Your task to perform on an android device: open app "YouTube Kids" (install if not already installed) and enter user name: "atmospheric@gmail.com" and password: "raze" Image 0: 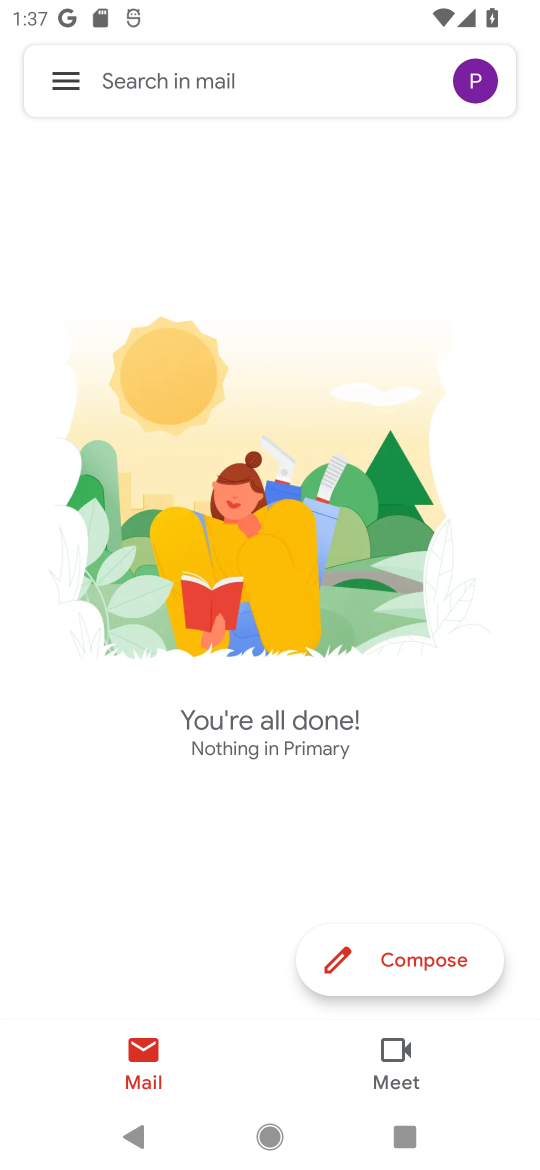
Step 0: press back button
Your task to perform on an android device: open app "YouTube Kids" (install if not already installed) and enter user name: "atmospheric@gmail.com" and password: "raze" Image 1: 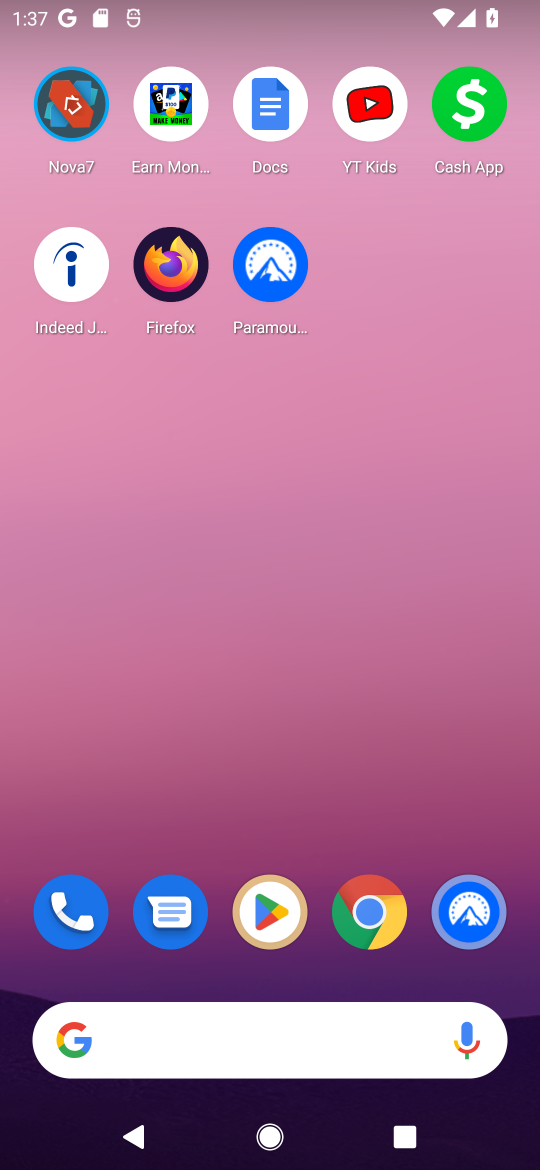
Step 1: click (254, 942)
Your task to perform on an android device: open app "YouTube Kids" (install if not already installed) and enter user name: "atmospheric@gmail.com" and password: "raze" Image 2: 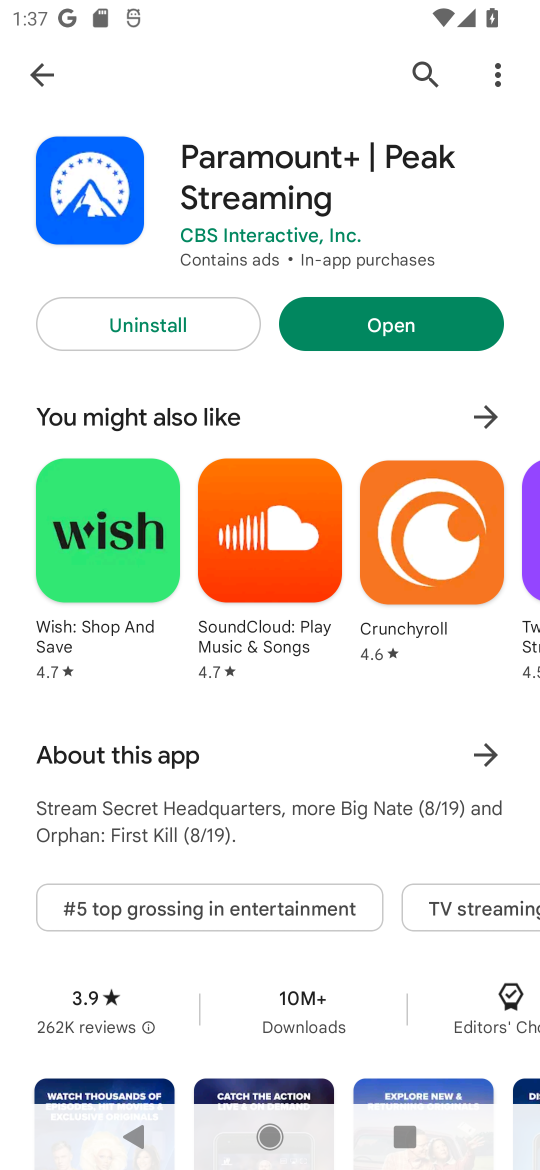
Step 2: click (434, 69)
Your task to perform on an android device: open app "YouTube Kids" (install if not already installed) and enter user name: "atmospheric@gmail.com" and password: "raze" Image 3: 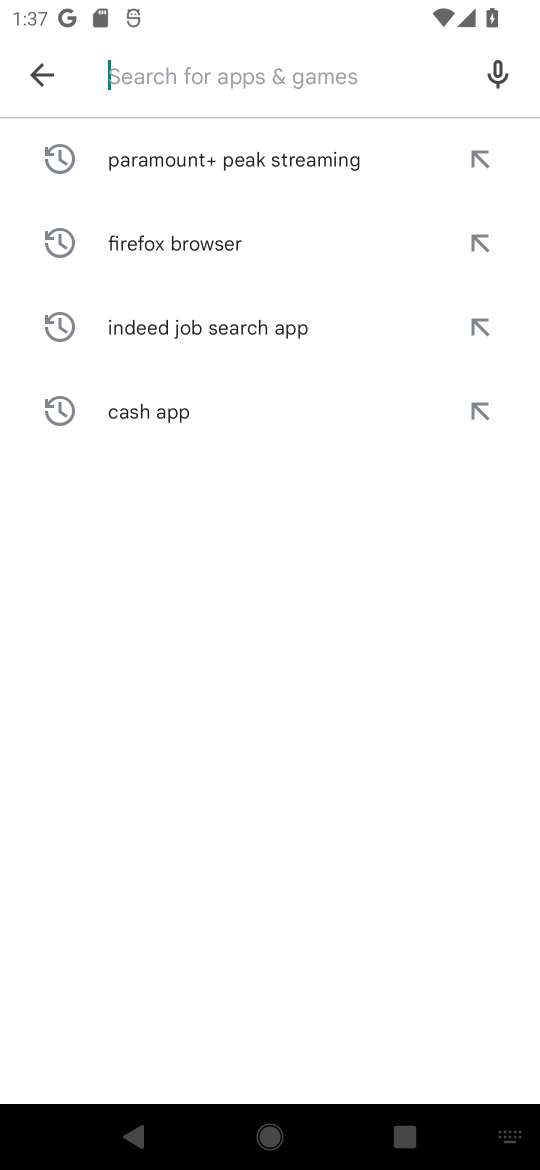
Step 3: click (284, 67)
Your task to perform on an android device: open app "YouTube Kids" (install if not already installed) and enter user name: "atmospheric@gmail.com" and password: "raze" Image 4: 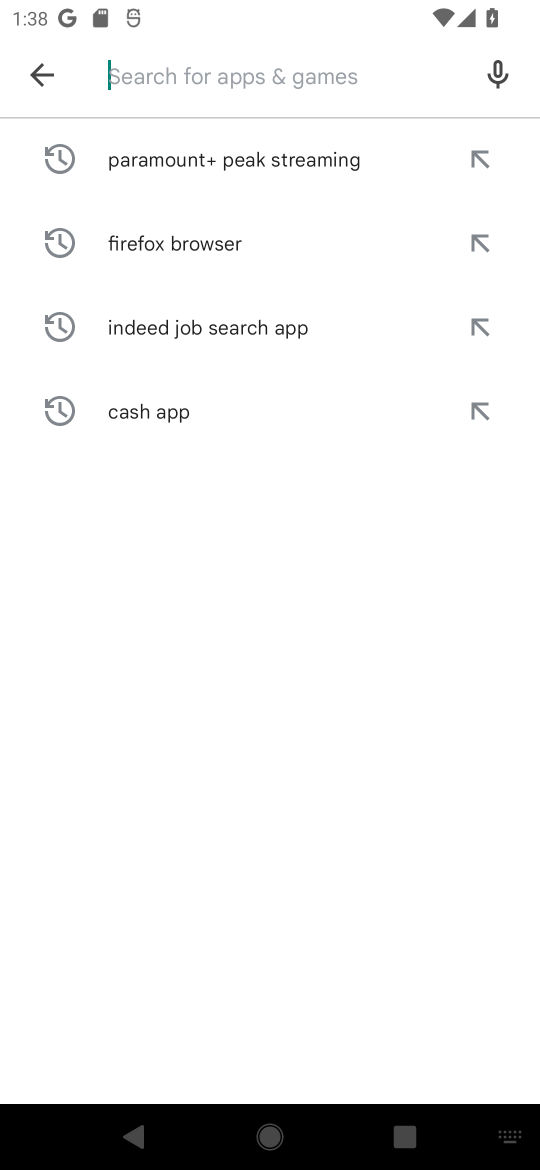
Step 4: type "youtubekids"
Your task to perform on an android device: open app "YouTube Kids" (install if not already installed) and enter user name: "atmospheric@gmail.com" and password: "raze" Image 5: 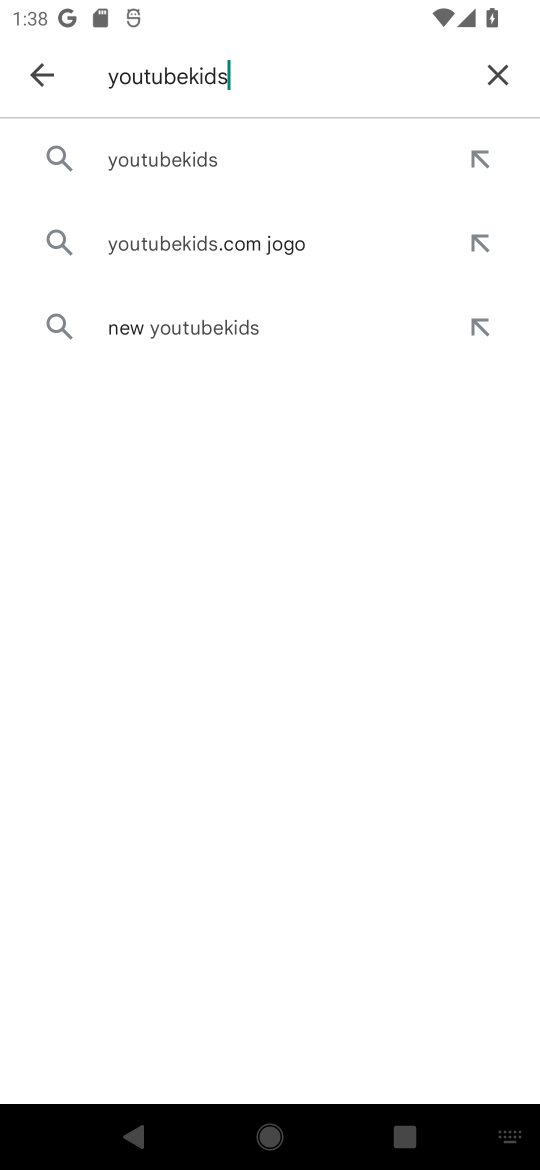
Step 5: click (205, 175)
Your task to perform on an android device: open app "YouTube Kids" (install if not already installed) and enter user name: "atmospheric@gmail.com" and password: "raze" Image 6: 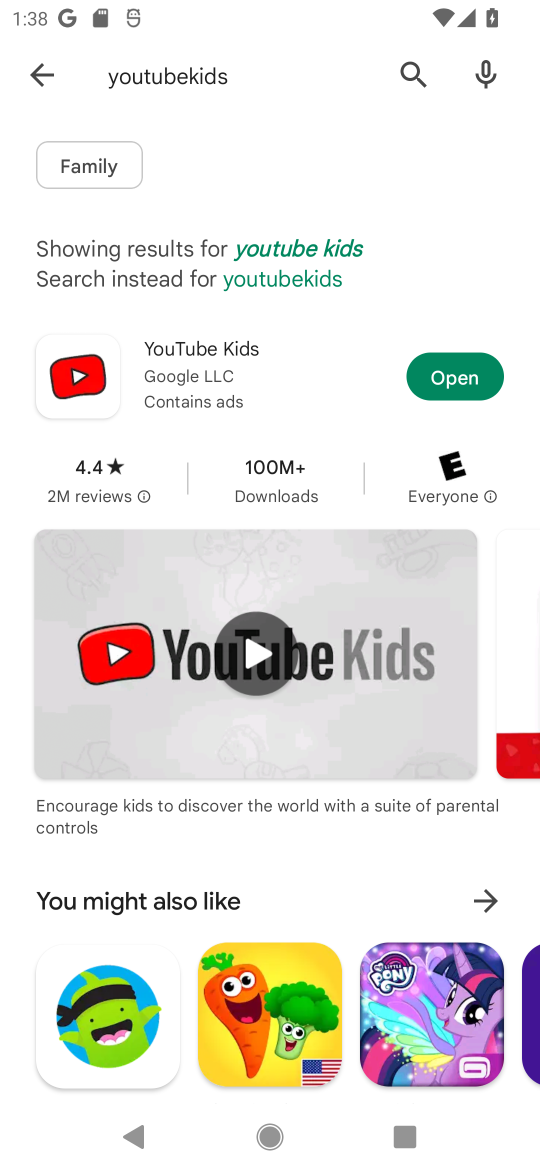
Step 6: click (248, 388)
Your task to perform on an android device: open app "YouTube Kids" (install if not already installed) and enter user name: "atmospheric@gmail.com" and password: "raze" Image 7: 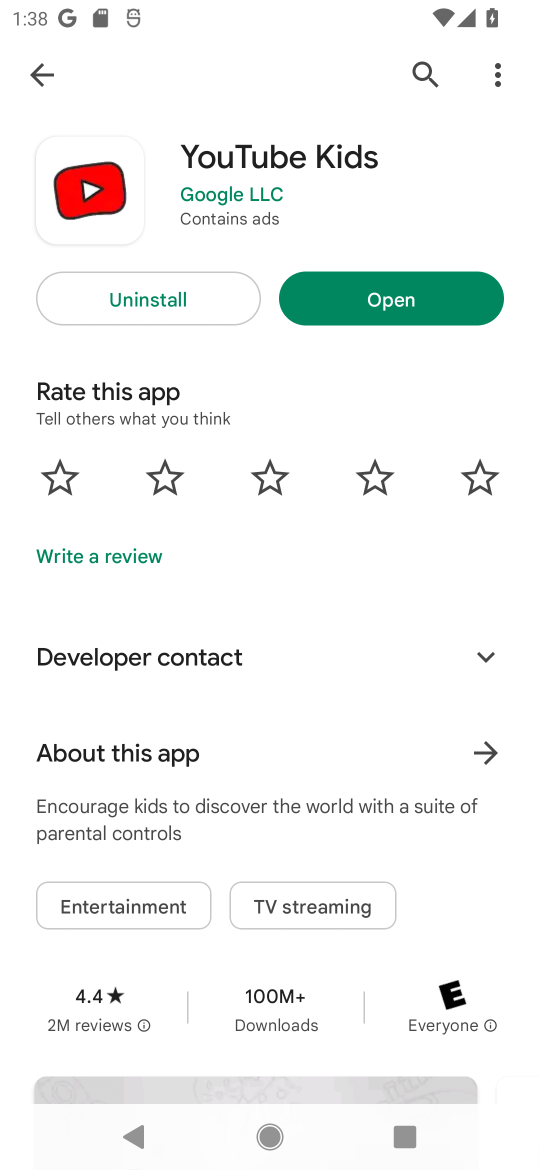
Step 7: click (446, 298)
Your task to perform on an android device: open app "YouTube Kids" (install if not already installed) and enter user name: "atmospheric@gmail.com" and password: "raze" Image 8: 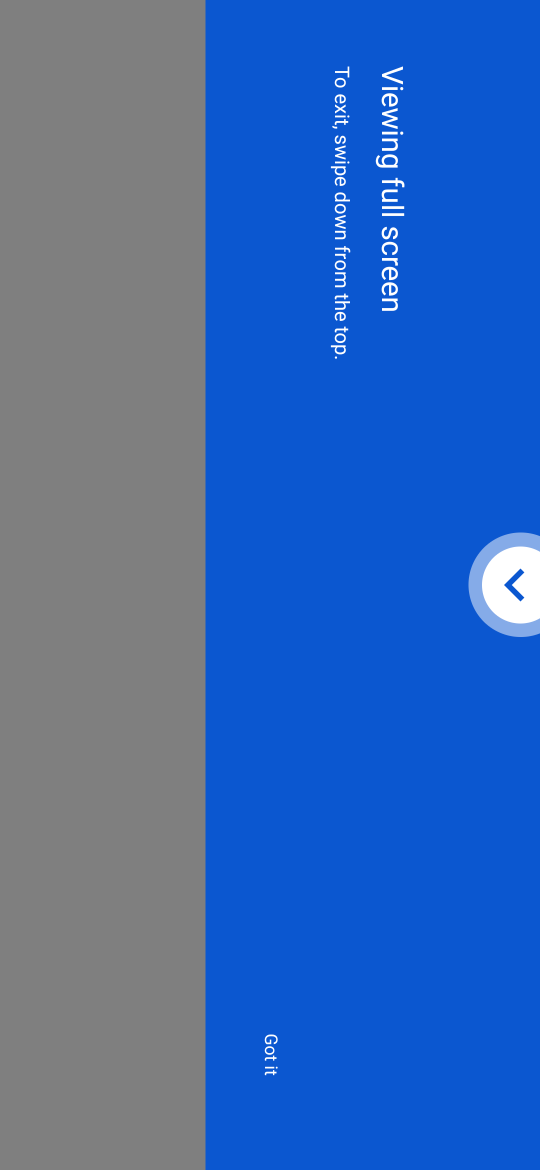
Step 8: task complete